Your task to perform on an android device: turn off improve location accuracy Image 0: 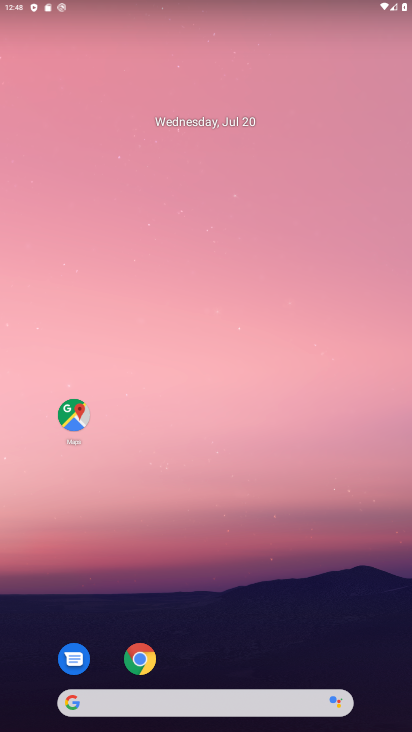
Step 0: drag from (354, 635) to (182, 54)
Your task to perform on an android device: turn off improve location accuracy Image 1: 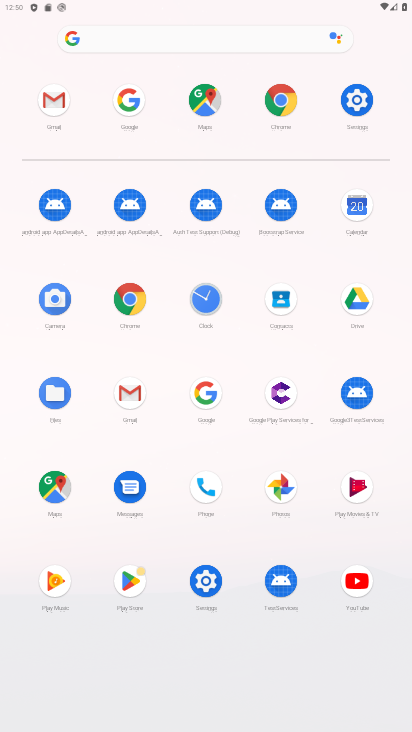
Step 1: click (213, 583)
Your task to perform on an android device: turn off improve location accuracy Image 2: 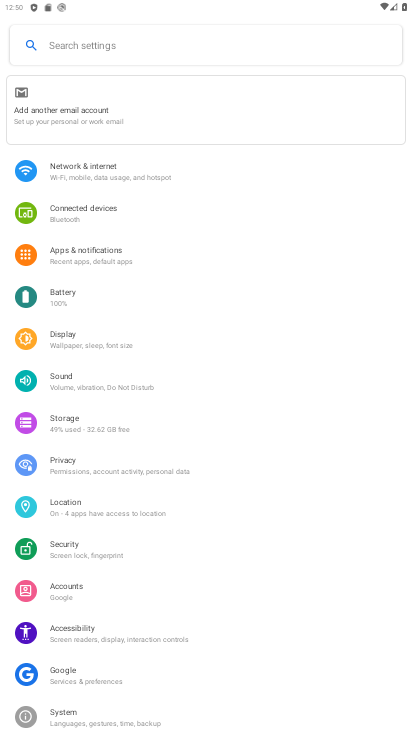
Step 2: click (76, 511)
Your task to perform on an android device: turn off improve location accuracy Image 3: 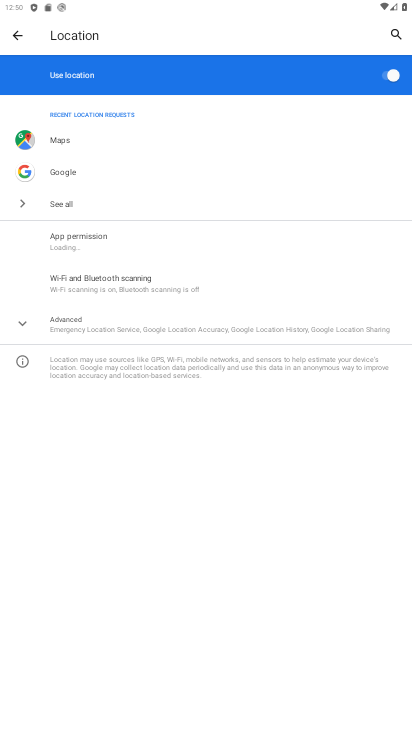
Step 3: click (71, 326)
Your task to perform on an android device: turn off improve location accuracy Image 4: 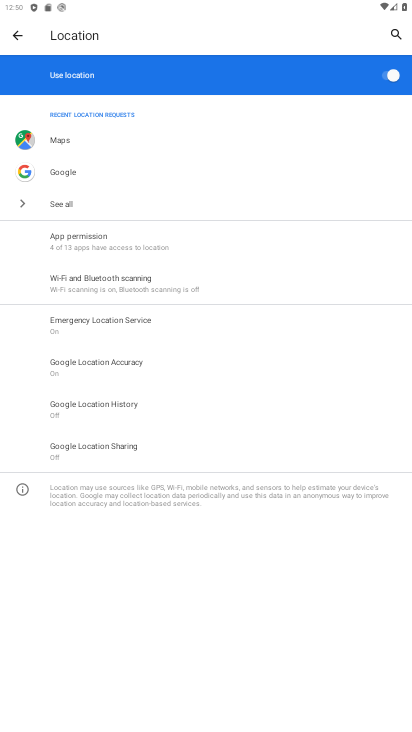
Step 4: click (91, 373)
Your task to perform on an android device: turn off improve location accuracy Image 5: 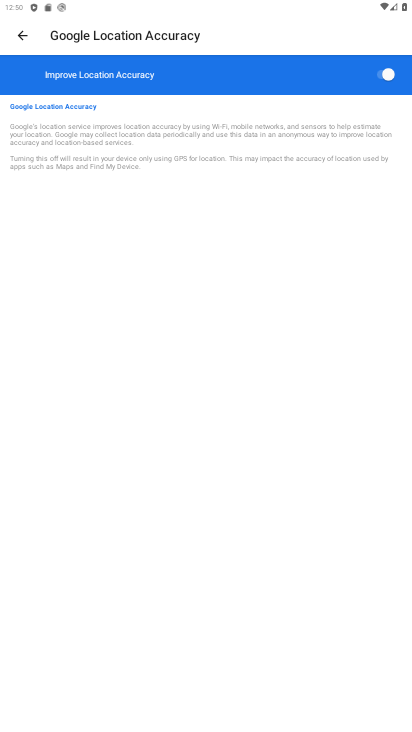
Step 5: click (368, 79)
Your task to perform on an android device: turn off improve location accuracy Image 6: 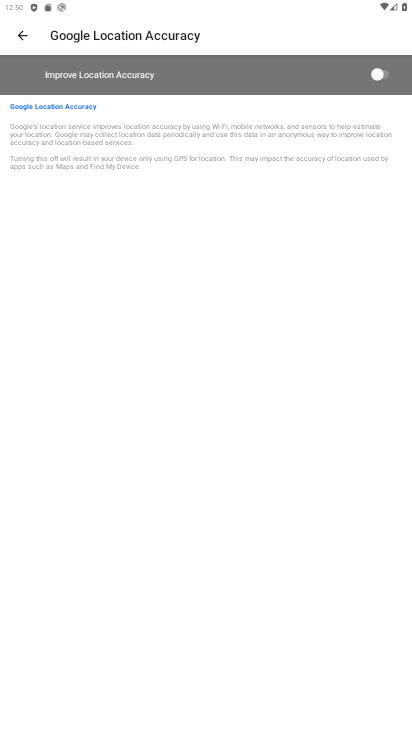
Step 6: task complete